Your task to perform on an android device: Open Youtube and go to the subscriptions tab Image 0: 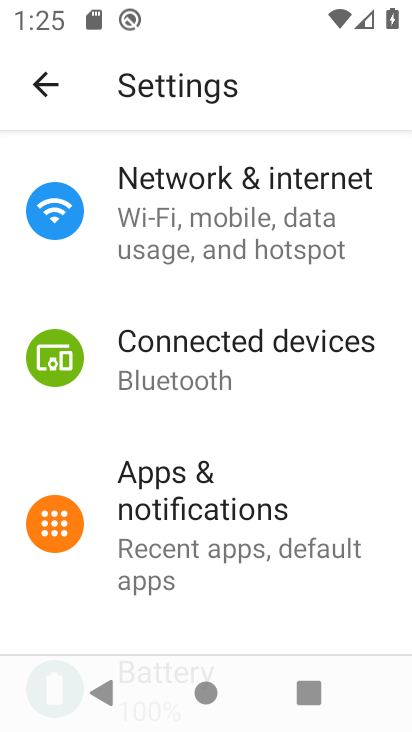
Step 0: press home button
Your task to perform on an android device: Open Youtube and go to the subscriptions tab Image 1: 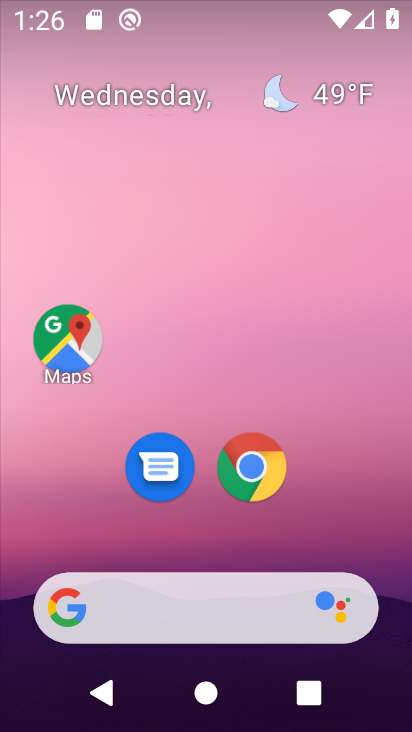
Step 1: drag from (352, 532) to (247, 80)
Your task to perform on an android device: Open Youtube and go to the subscriptions tab Image 2: 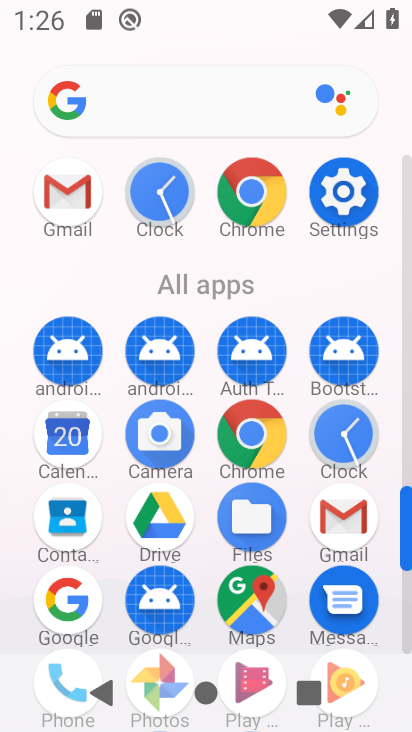
Step 2: click (408, 644)
Your task to perform on an android device: Open Youtube and go to the subscriptions tab Image 3: 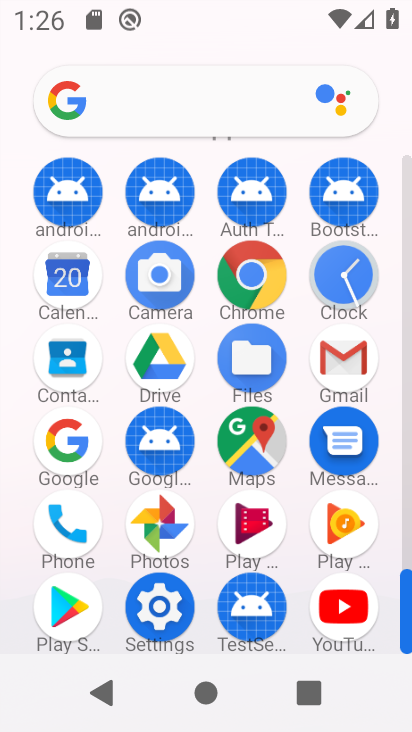
Step 3: click (342, 603)
Your task to perform on an android device: Open Youtube and go to the subscriptions tab Image 4: 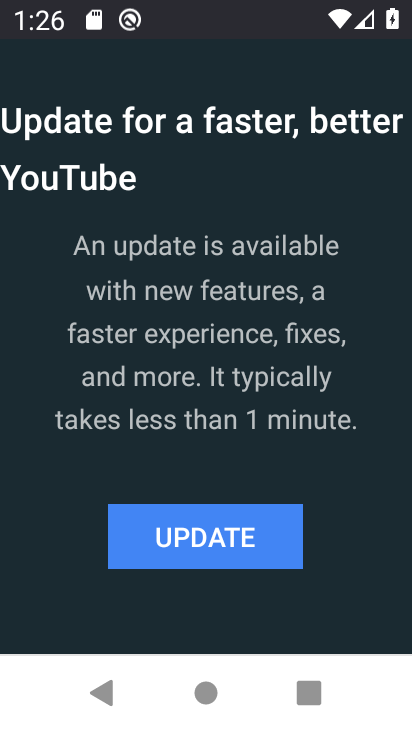
Step 4: click (203, 547)
Your task to perform on an android device: Open Youtube and go to the subscriptions tab Image 5: 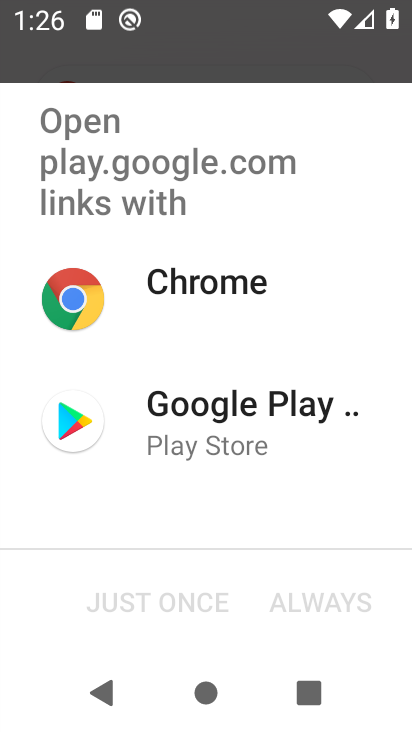
Step 5: click (195, 402)
Your task to perform on an android device: Open Youtube and go to the subscriptions tab Image 6: 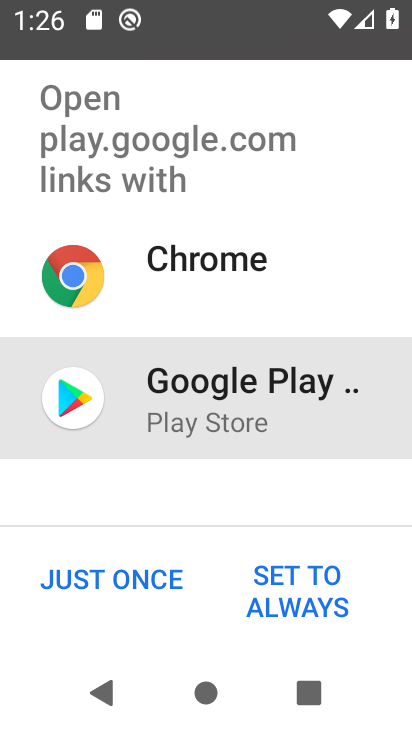
Step 6: click (125, 581)
Your task to perform on an android device: Open Youtube and go to the subscriptions tab Image 7: 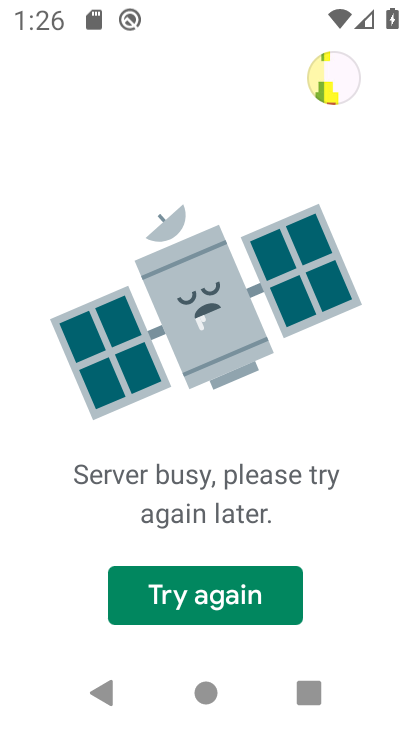
Step 7: task complete